Your task to perform on an android device: turn on airplane mode Image 0: 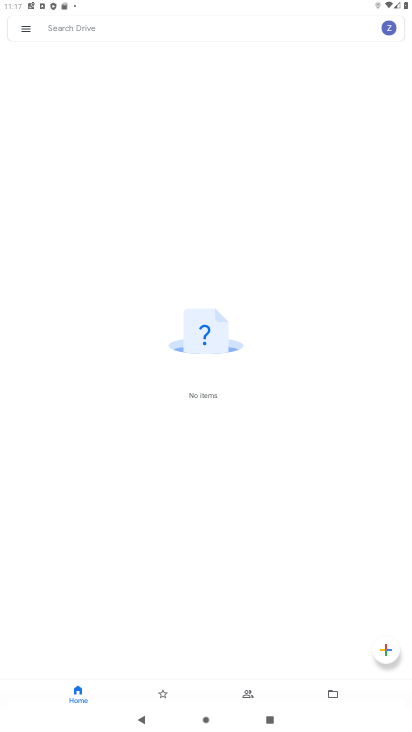
Step 0: press home button
Your task to perform on an android device: turn on airplane mode Image 1: 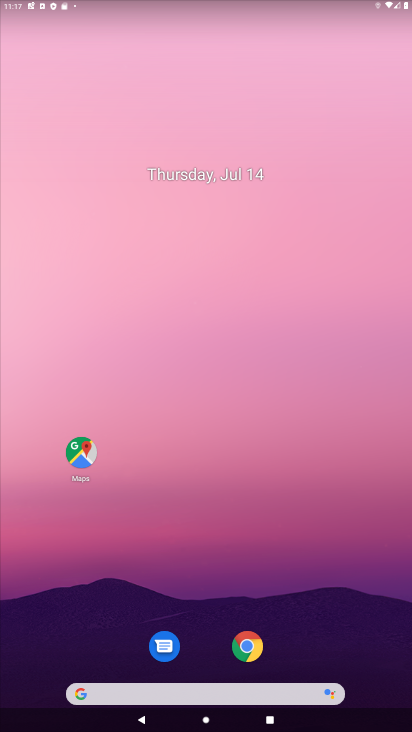
Step 1: drag from (202, 648) to (171, 331)
Your task to perform on an android device: turn on airplane mode Image 2: 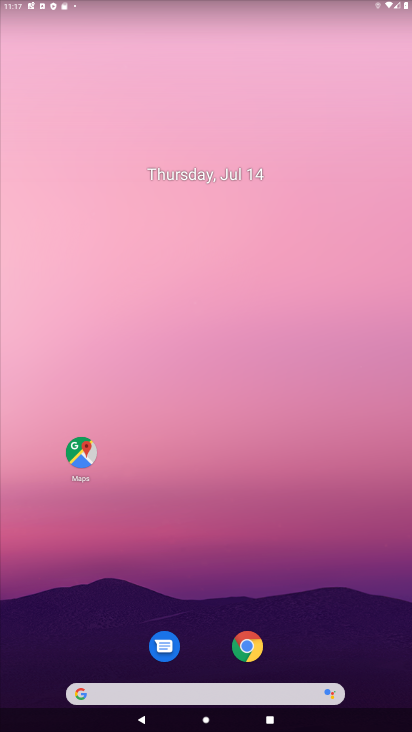
Step 2: drag from (213, 654) to (183, 221)
Your task to perform on an android device: turn on airplane mode Image 3: 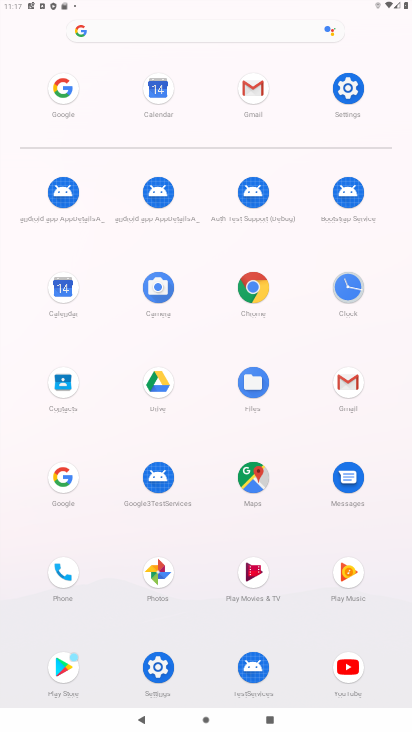
Step 3: click (352, 109)
Your task to perform on an android device: turn on airplane mode Image 4: 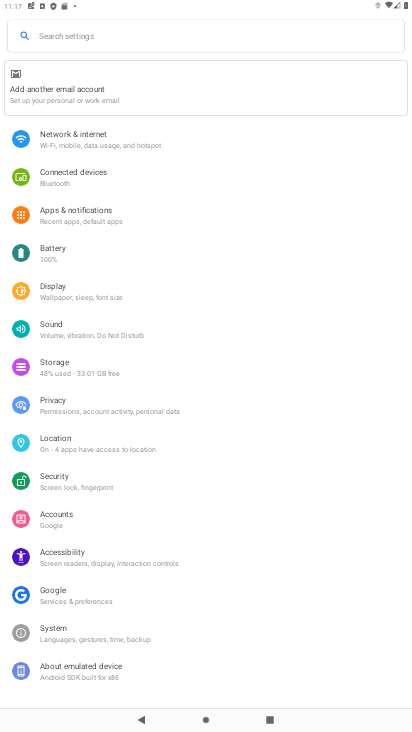
Step 4: click (87, 147)
Your task to perform on an android device: turn on airplane mode Image 5: 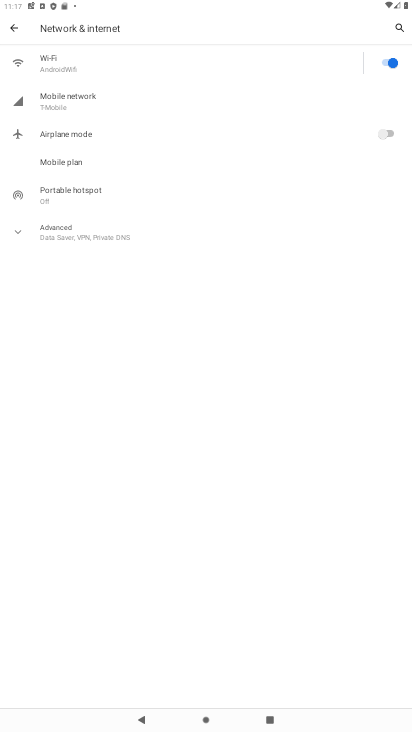
Step 5: click (394, 127)
Your task to perform on an android device: turn on airplane mode Image 6: 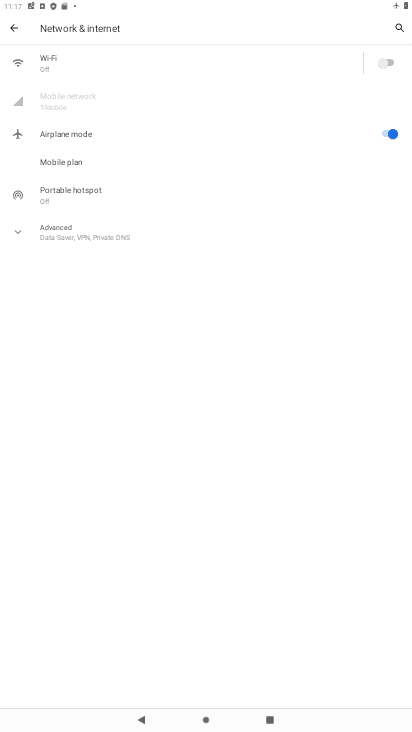
Step 6: task complete